Your task to perform on an android device: make emails show in primary in the gmail app Image 0: 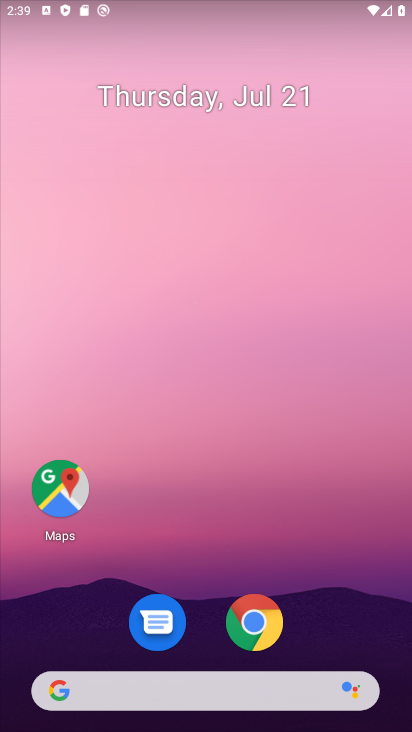
Step 0: drag from (260, 668) to (227, 194)
Your task to perform on an android device: make emails show in primary in the gmail app Image 1: 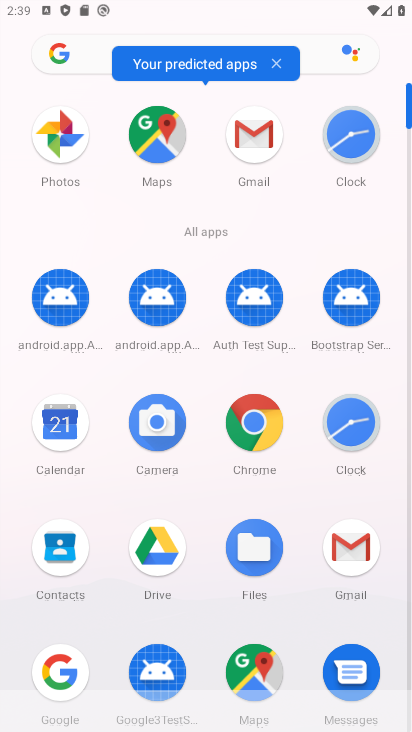
Step 1: click (255, 142)
Your task to perform on an android device: make emails show in primary in the gmail app Image 2: 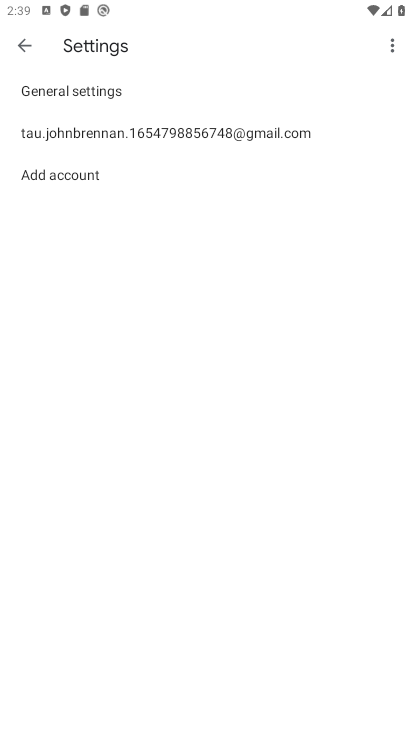
Step 2: click (86, 142)
Your task to perform on an android device: make emails show in primary in the gmail app Image 3: 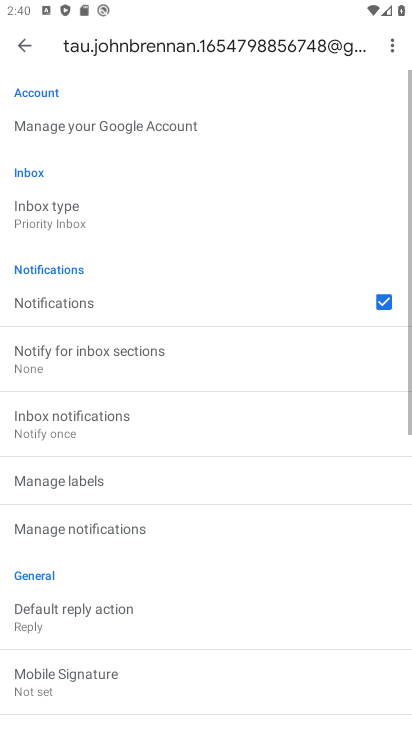
Step 3: click (86, 221)
Your task to perform on an android device: make emails show in primary in the gmail app Image 4: 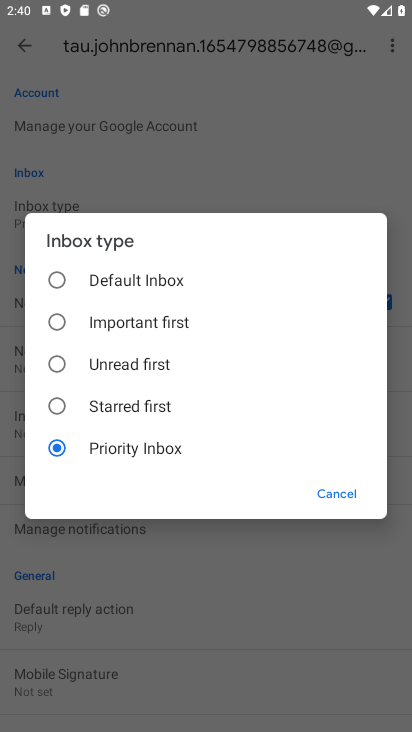
Step 4: click (98, 275)
Your task to perform on an android device: make emails show in primary in the gmail app Image 5: 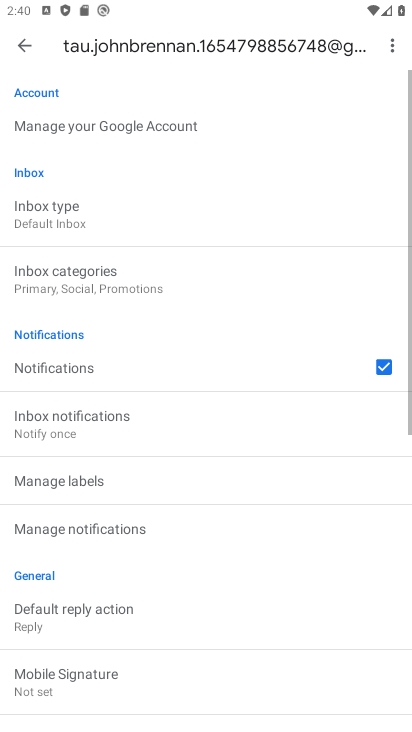
Step 5: click (76, 287)
Your task to perform on an android device: make emails show in primary in the gmail app Image 6: 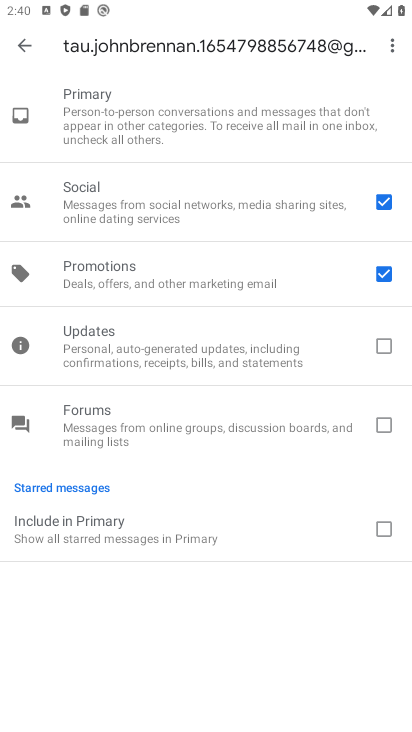
Step 6: click (144, 128)
Your task to perform on an android device: make emails show in primary in the gmail app Image 7: 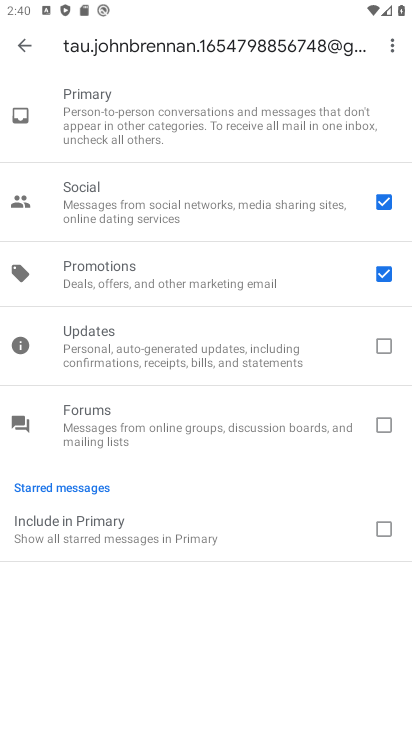
Step 7: task complete